Your task to perform on an android device: open app "Contacts" (install if not already installed) Image 0: 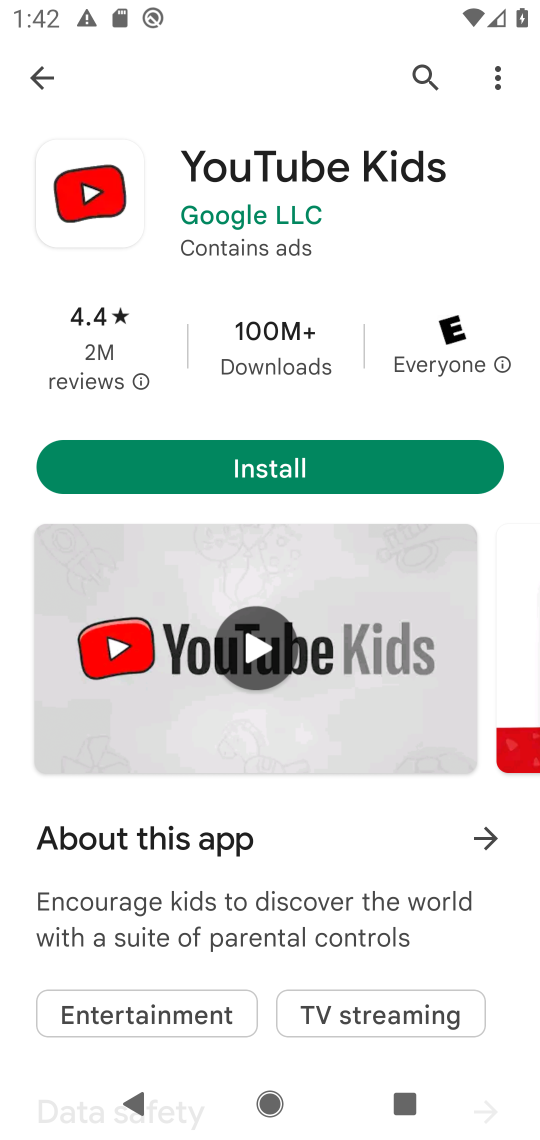
Step 0: press back button
Your task to perform on an android device: open app "Contacts" (install if not already installed) Image 1: 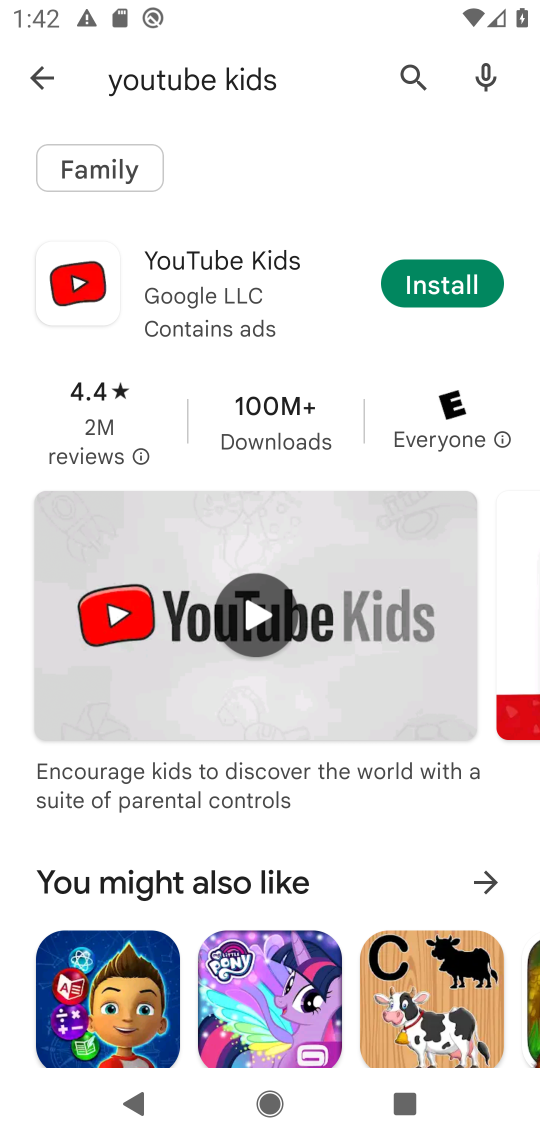
Step 1: press back button
Your task to perform on an android device: open app "Contacts" (install if not already installed) Image 2: 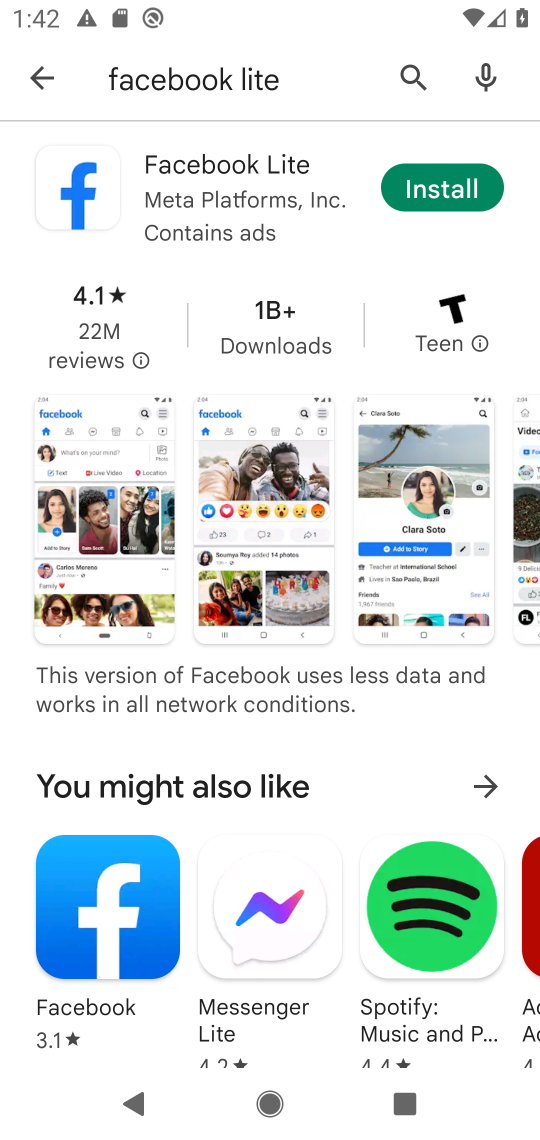
Step 2: press back button
Your task to perform on an android device: open app "Contacts" (install if not already installed) Image 3: 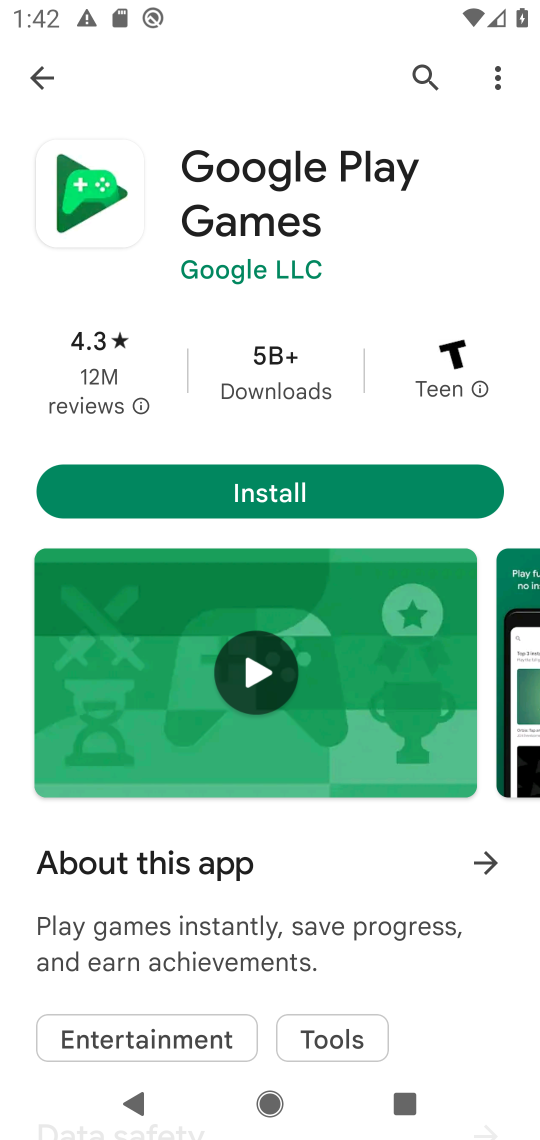
Step 3: press back button
Your task to perform on an android device: open app "Contacts" (install if not already installed) Image 4: 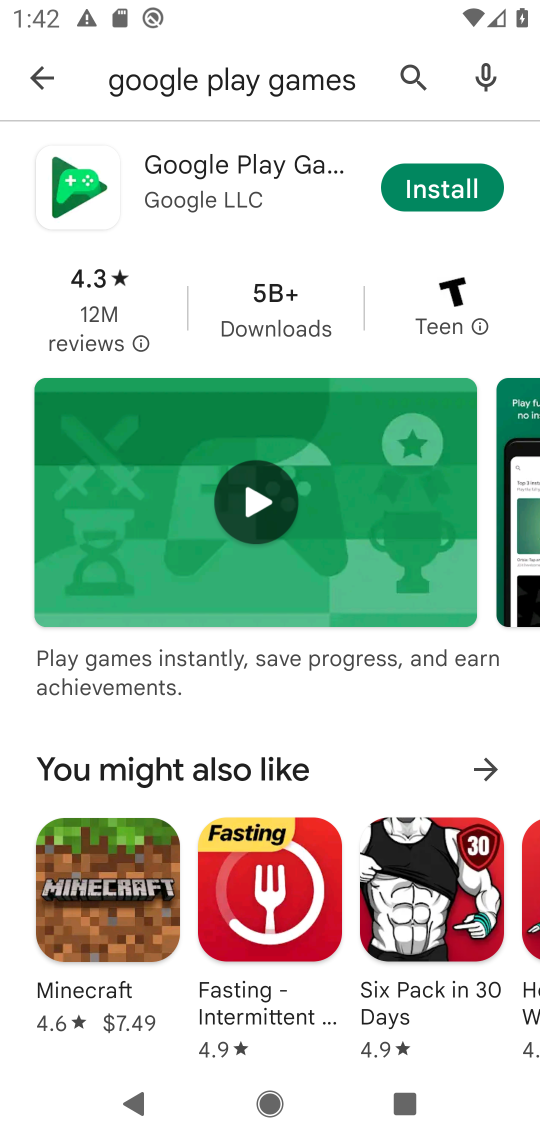
Step 4: click (397, 74)
Your task to perform on an android device: open app "Contacts" (install if not already installed) Image 5: 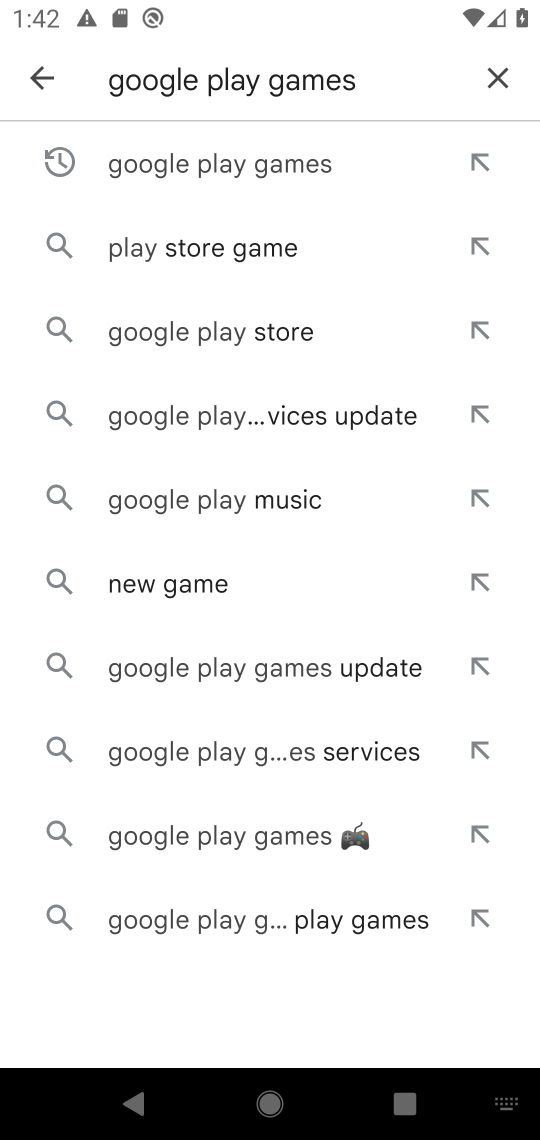
Step 5: click (504, 75)
Your task to perform on an android device: open app "Contacts" (install if not already installed) Image 6: 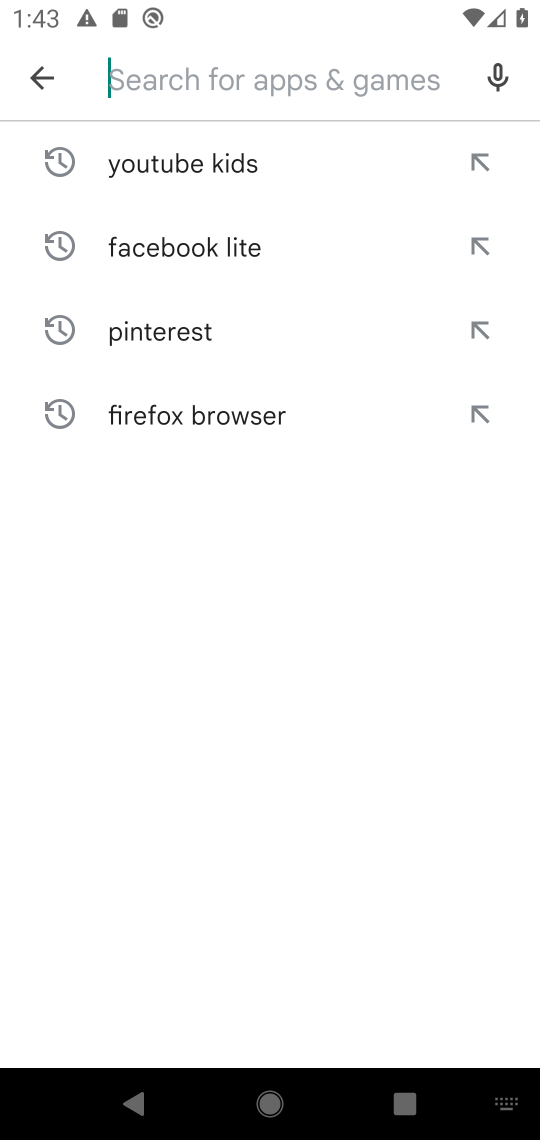
Step 6: press back button
Your task to perform on an android device: open app "Contacts" (install if not already installed) Image 7: 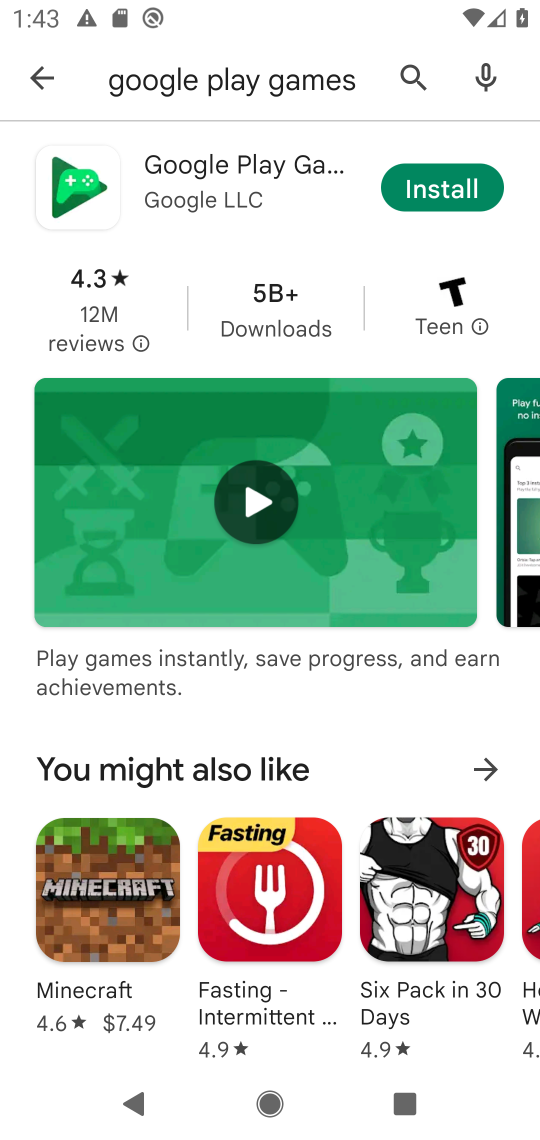
Step 7: click (404, 63)
Your task to perform on an android device: open app "Contacts" (install if not already installed) Image 8: 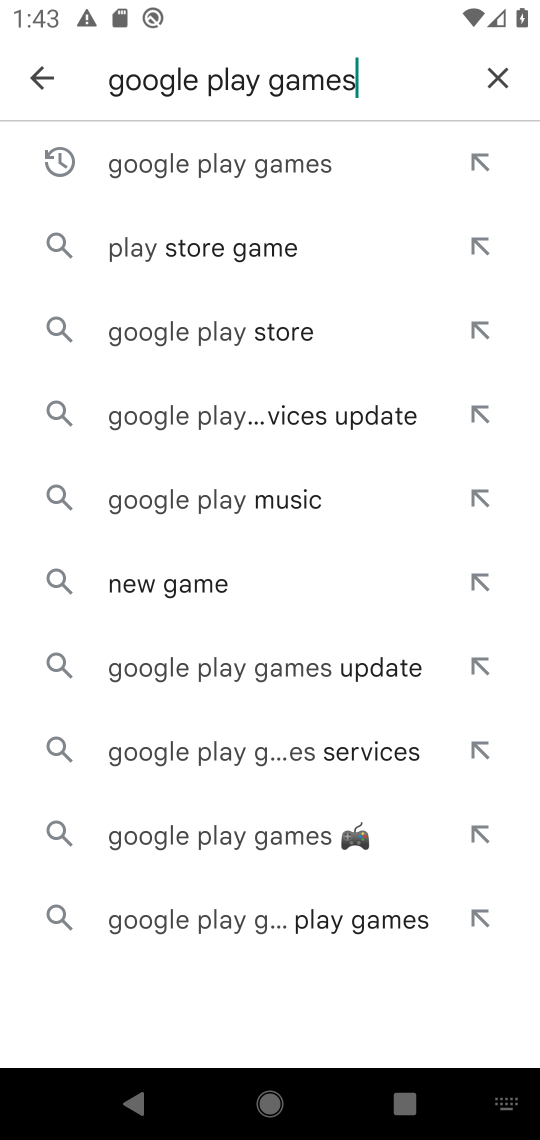
Step 8: click (505, 67)
Your task to perform on an android device: open app "Contacts" (install if not already installed) Image 9: 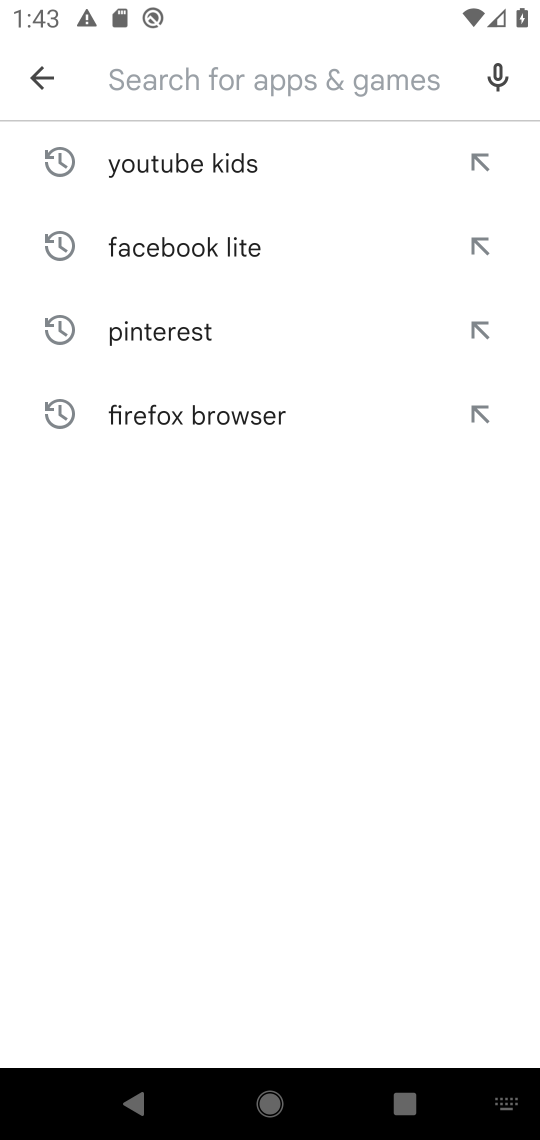
Step 9: click (175, 64)
Your task to perform on an android device: open app "Contacts" (install if not already installed) Image 10: 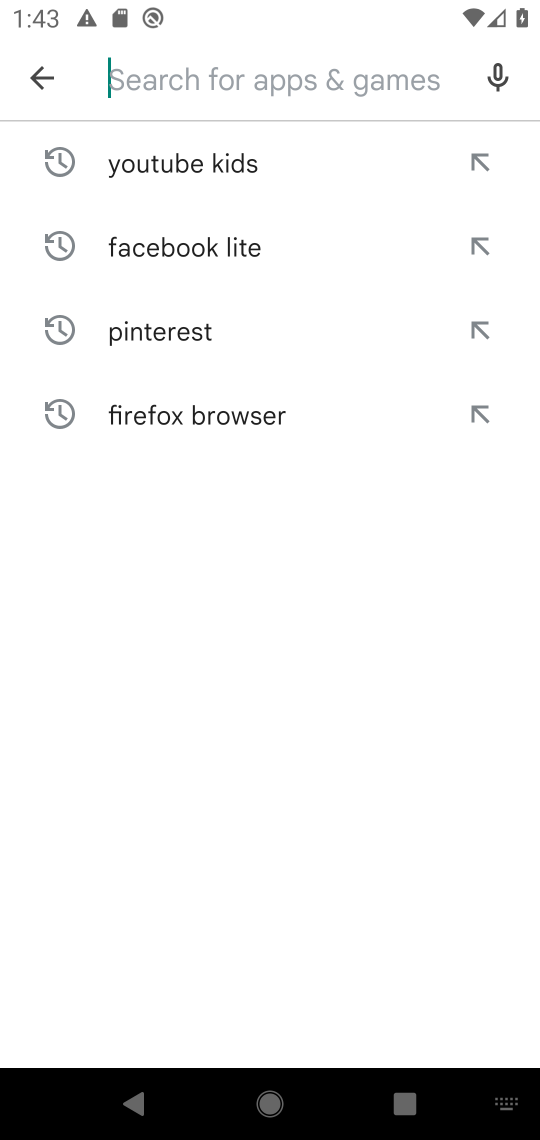
Step 10: type "Contacts"
Your task to perform on an android device: open app "Contacts" (install if not already installed) Image 11: 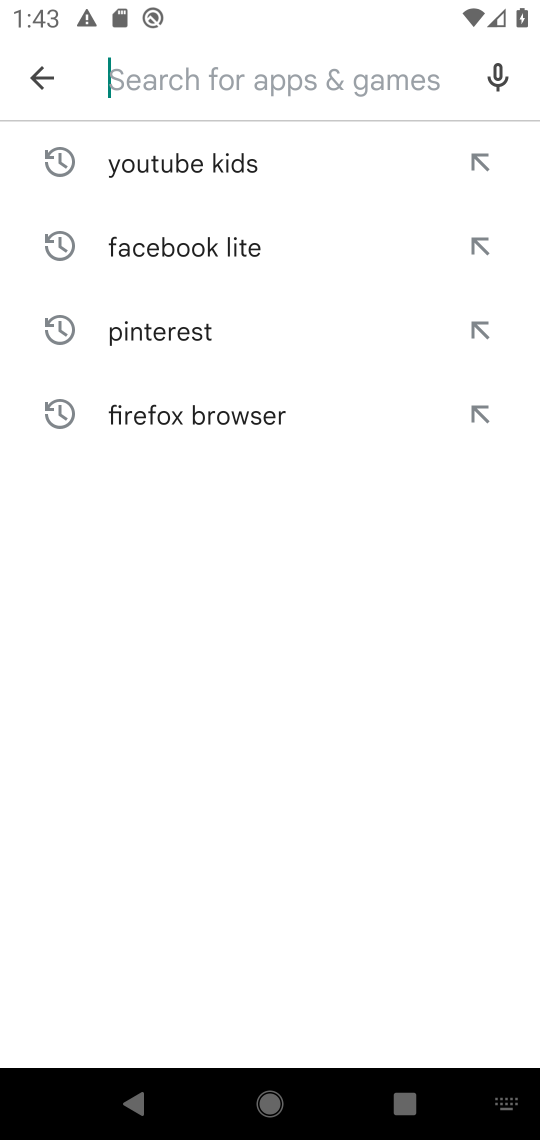
Step 11: click (255, 671)
Your task to perform on an android device: open app "Contacts" (install if not already installed) Image 12: 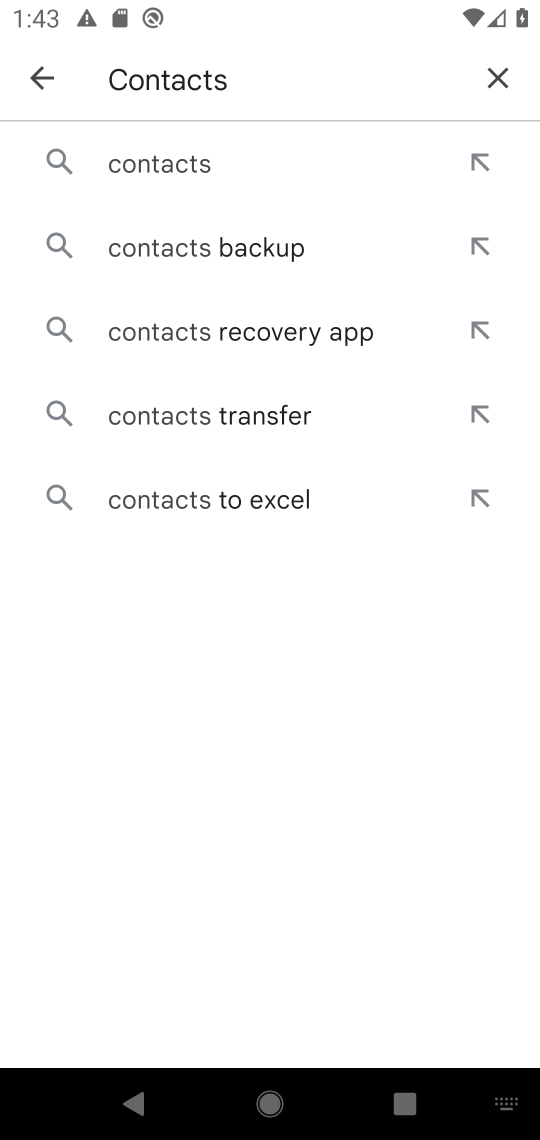
Step 12: click (268, 170)
Your task to perform on an android device: open app "Contacts" (install if not already installed) Image 13: 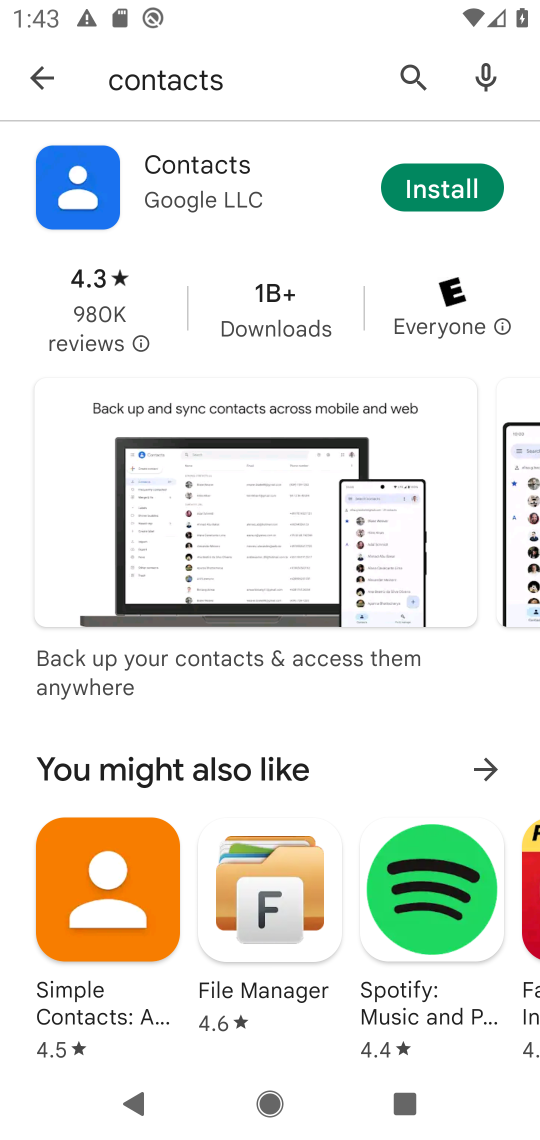
Step 13: click (433, 180)
Your task to perform on an android device: open app "Contacts" (install if not already installed) Image 14: 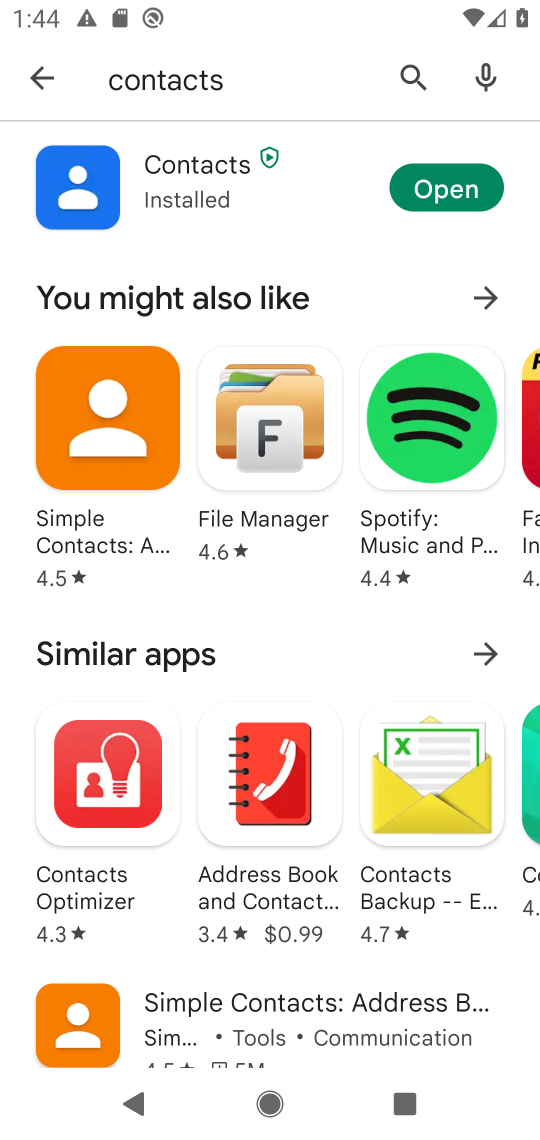
Step 14: click (454, 189)
Your task to perform on an android device: open app "Contacts" (install if not already installed) Image 15: 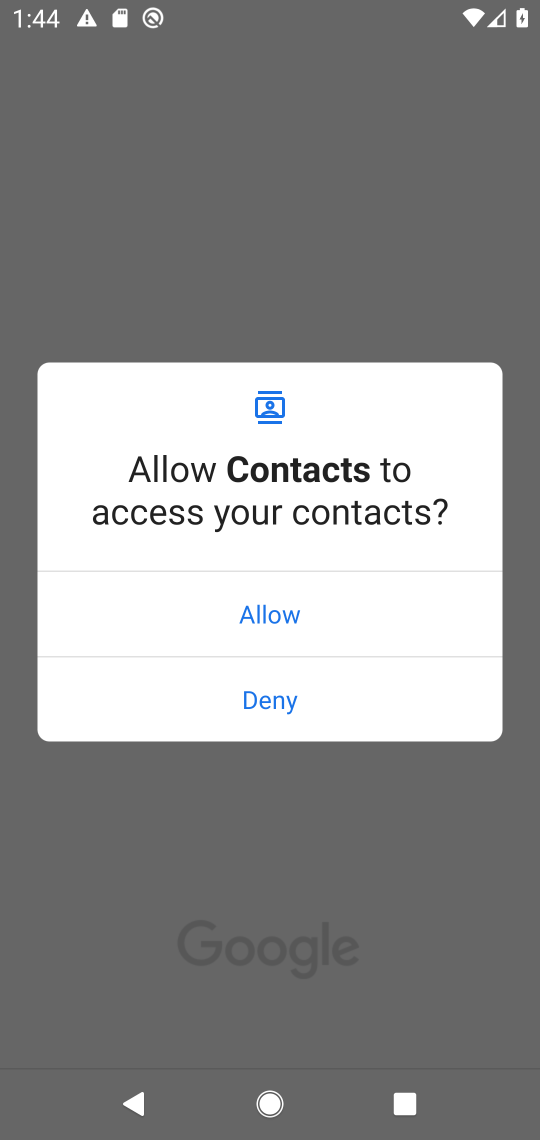
Step 15: task complete